Your task to perform on an android device: Go to Maps Image 0: 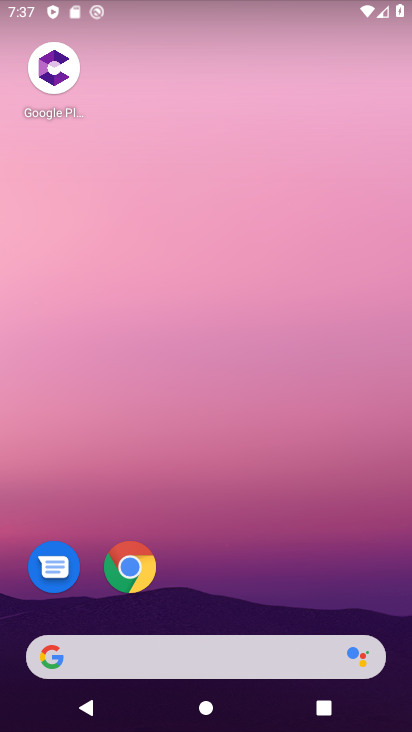
Step 0: task complete